Your task to perform on an android device: delete the emails in spam in the gmail app Image 0: 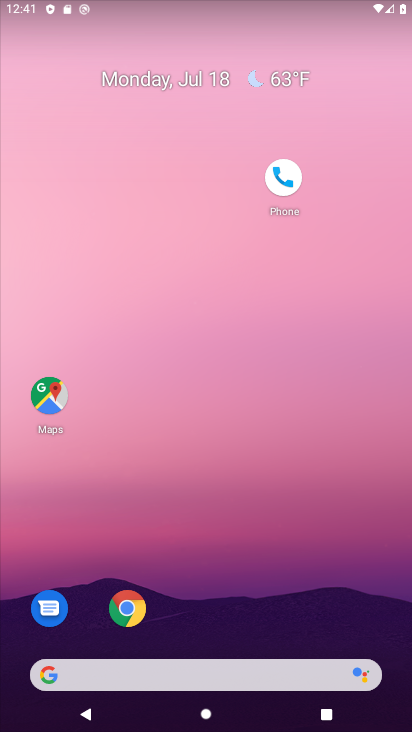
Step 0: drag from (250, 656) to (160, 108)
Your task to perform on an android device: delete the emails in spam in the gmail app Image 1: 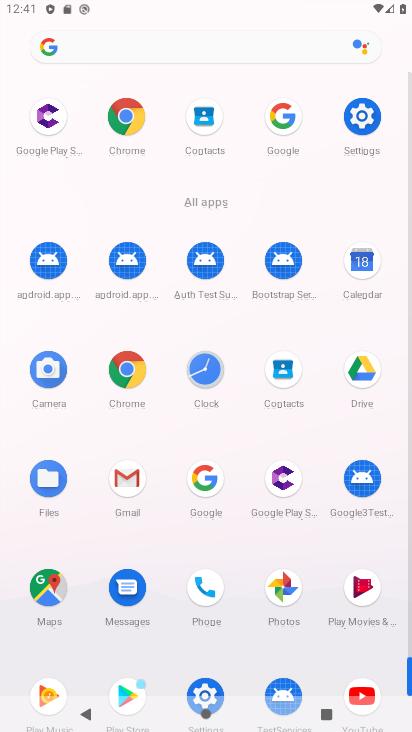
Step 1: drag from (165, 622) to (97, 334)
Your task to perform on an android device: delete the emails in spam in the gmail app Image 2: 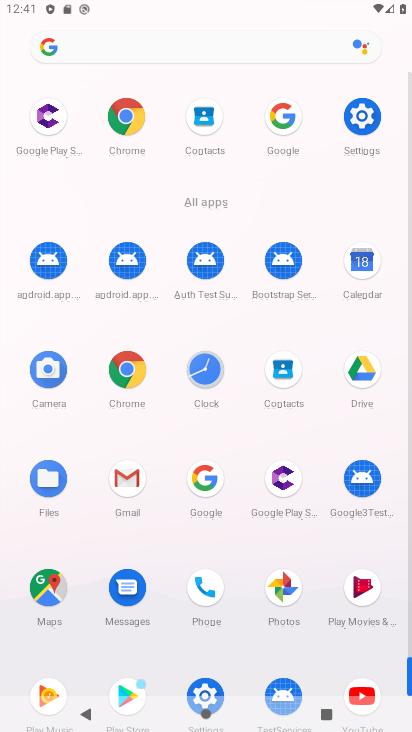
Step 2: click (125, 481)
Your task to perform on an android device: delete the emails in spam in the gmail app Image 3: 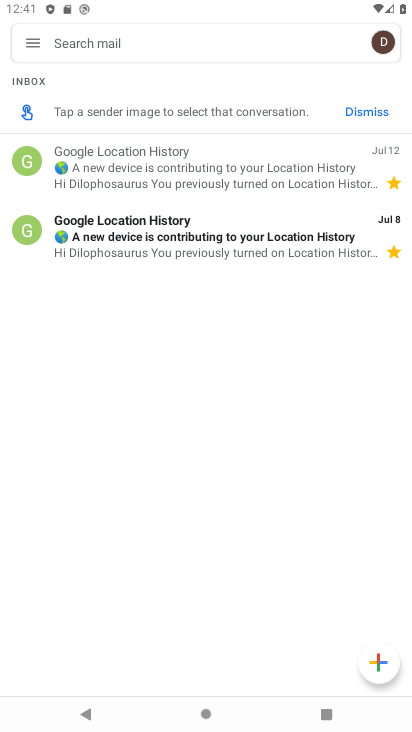
Step 3: click (130, 472)
Your task to perform on an android device: delete the emails in spam in the gmail app Image 4: 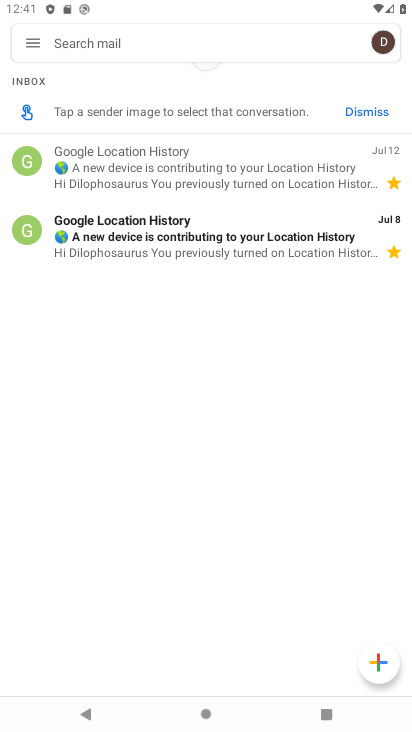
Step 4: click (117, 470)
Your task to perform on an android device: delete the emails in spam in the gmail app Image 5: 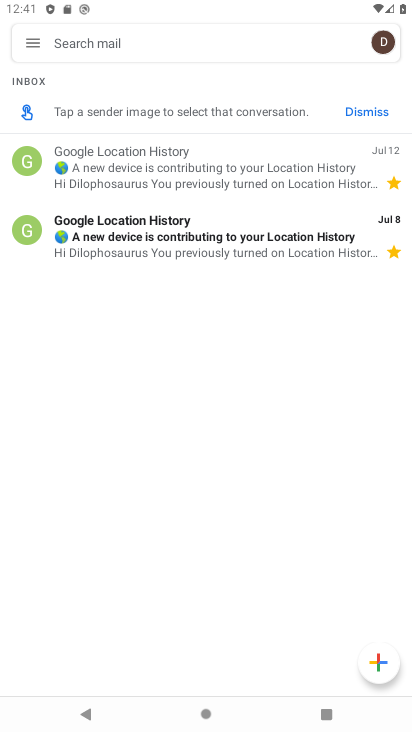
Step 5: click (125, 470)
Your task to perform on an android device: delete the emails in spam in the gmail app Image 6: 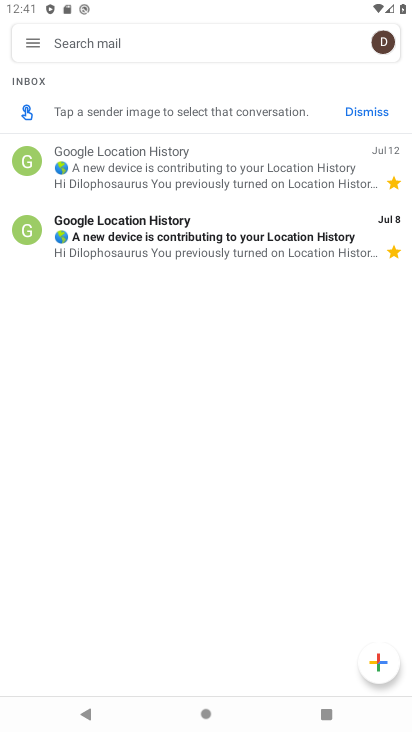
Step 6: click (130, 473)
Your task to perform on an android device: delete the emails in spam in the gmail app Image 7: 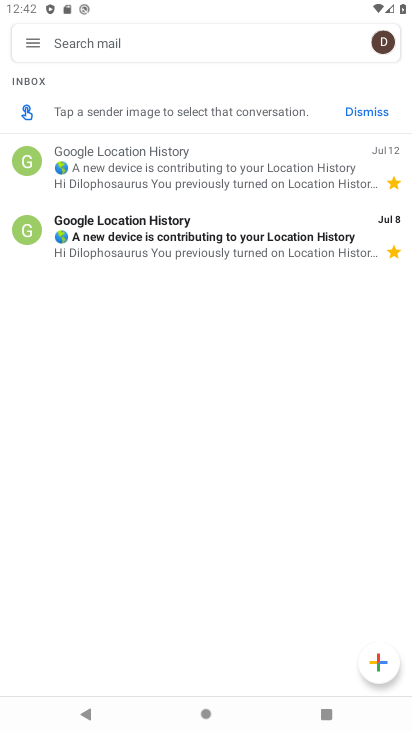
Step 7: click (27, 45)
Your task to perform on an android device: delete the emails in spam in the gmail app Image 8: 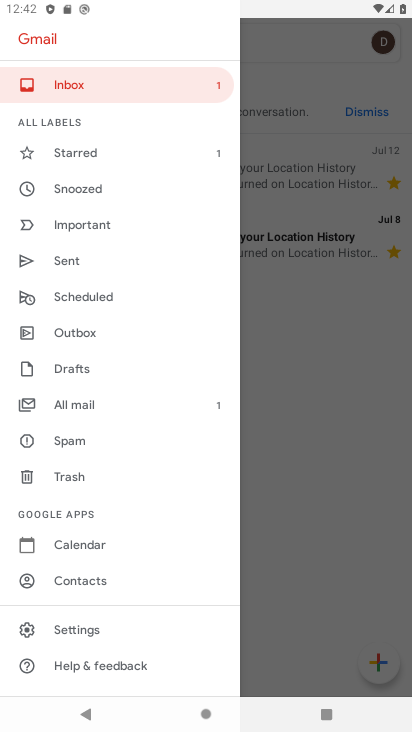
Step 8: click (38, 37)
Your task to perform on an android device: delete the emails in spam in the gmail app Image 9: 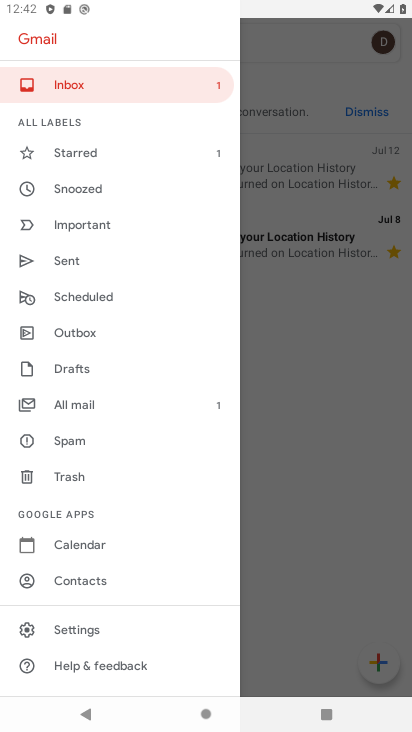
Step 9: click (29, 38)
Your task to perform on an android device: delete the emails in spam in the gmail app Image 10: 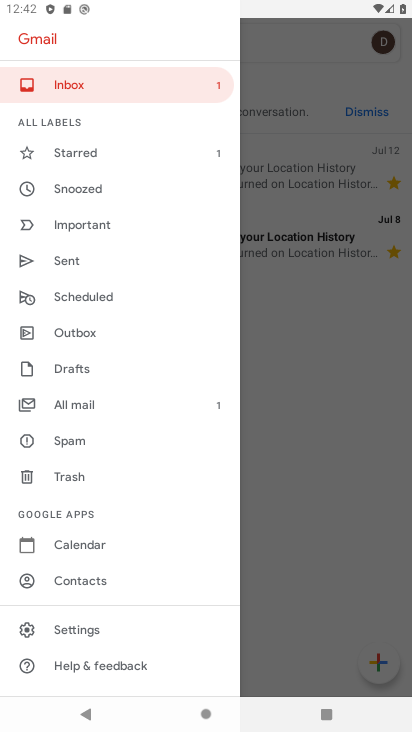
Step 10: click (27, 41)
Your task to perform on an android device: delete the emails in spam in the gmail app Image 11: 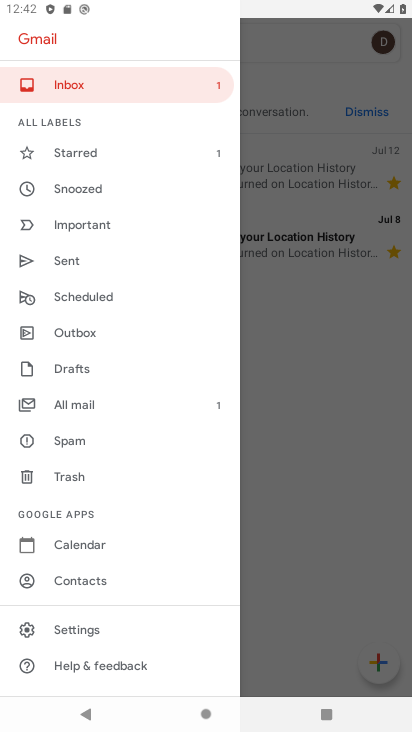
Step 11: drag from (27, 41) to (77, 302)
Your task to perform on an android device: delete the emails in spam in the gmail app Image 12: 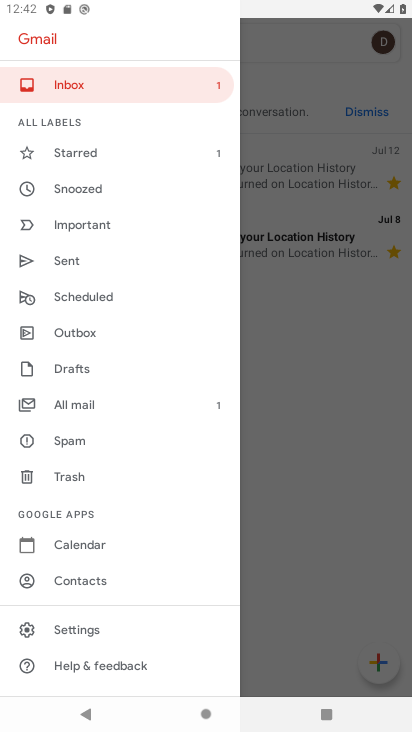
Step 12: click (19, 38)
Your task to perform on an android device: delete the emails in spam in the gmail app Image 13: 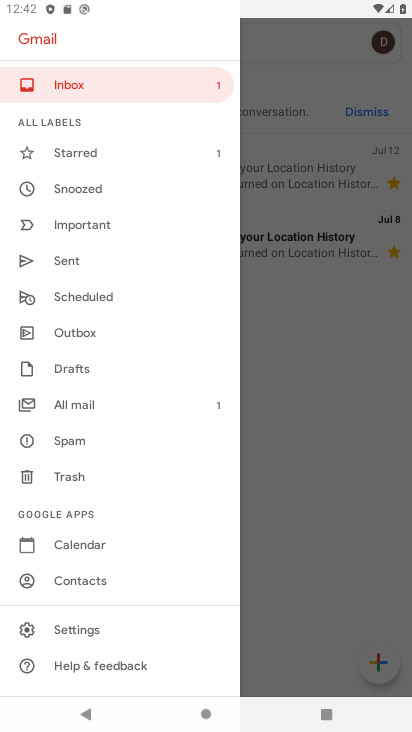
Step 13: click (27, 45)
Your task to perform on an android device: delete the emails in spam in the gmail app Image 14: 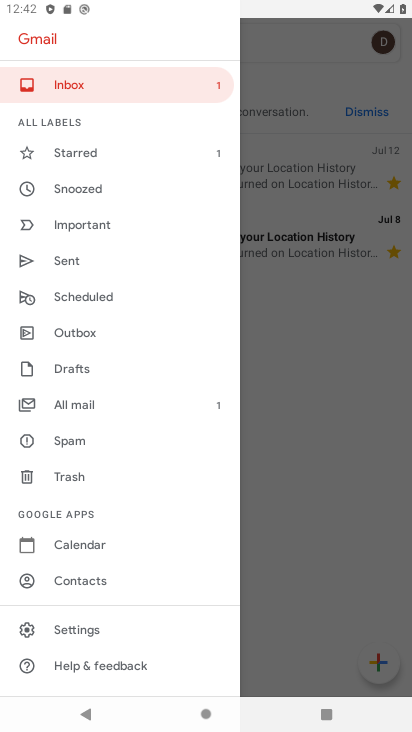
Step 14: click (79, 436)
Your task to perform on an android device: delete the emails in spam in the gmail app Image 15: 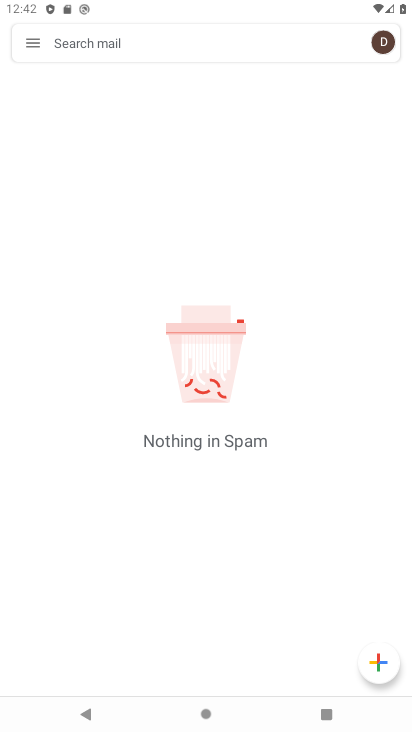
Step 15: click (75, 437)
Your task to perform on an android device: delete the emails in spam in the gmail app Image 16: 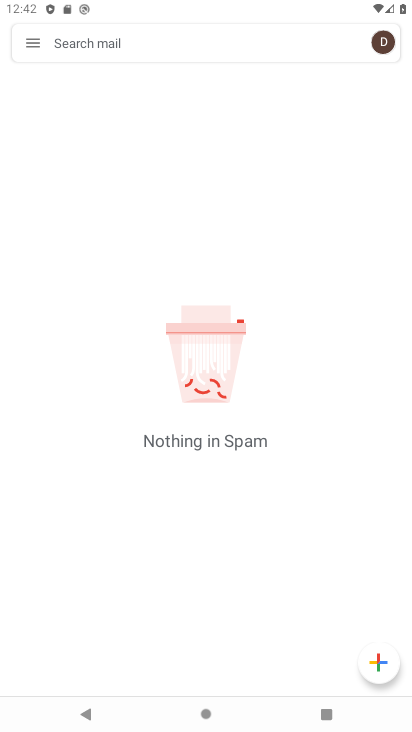
Step 16: task complete